Your task to perform on an android device: What are the new products by Samsung? Image 0: 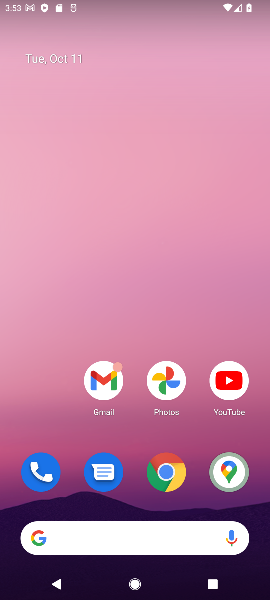
Step 0: click (134, 543)
Your task to perform on an android device: What are the new products by Samsung? Image 1: 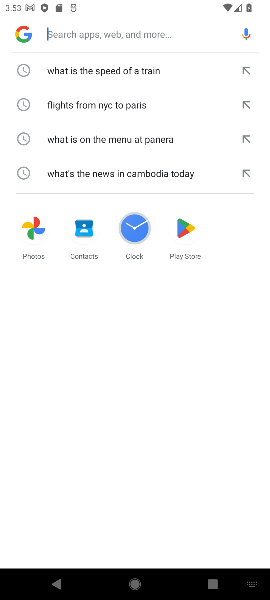
Step 1: type "What are the new products by Samsung?"
Your task to perform on an android device: What are the new products by Samsung? Image 2: 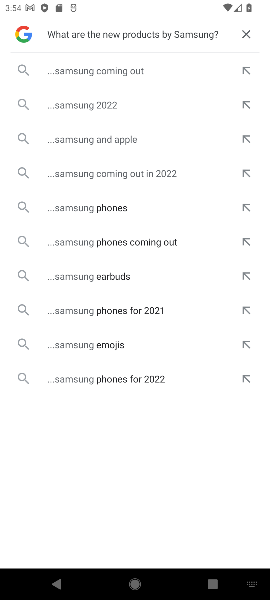
Step 2: click (128, 75)
Your task to perform on an android device: What are the new products by Samsung? Image 3: 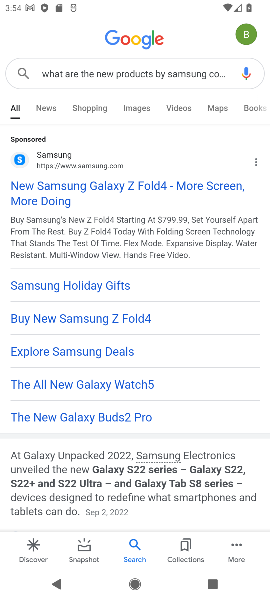
Step 3: task complete